Your task to perform on an android device: allow notifications from all sites in the chrome app Image 0: 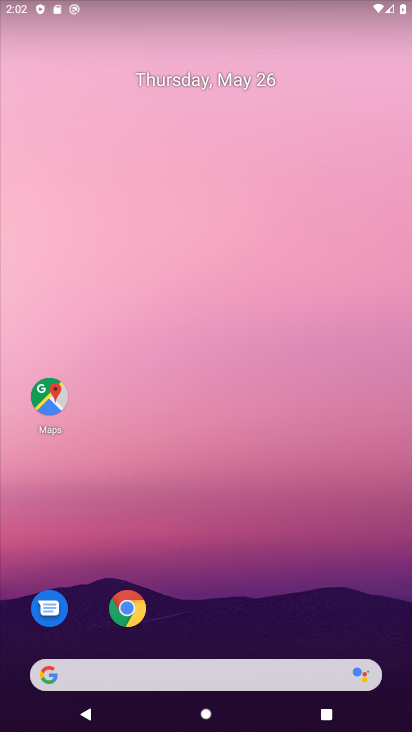
Step 0: click (183, 129)
Your task to perform on an android device: allow notifications from all sites in the chrome app Image 1: 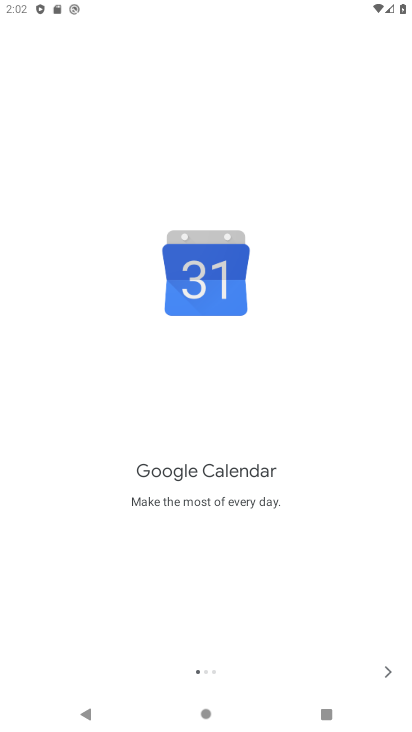
Step 1: click (386, 673)
Your task to perform on an android device: allow notifications from all sites in the chrome app Image 2: 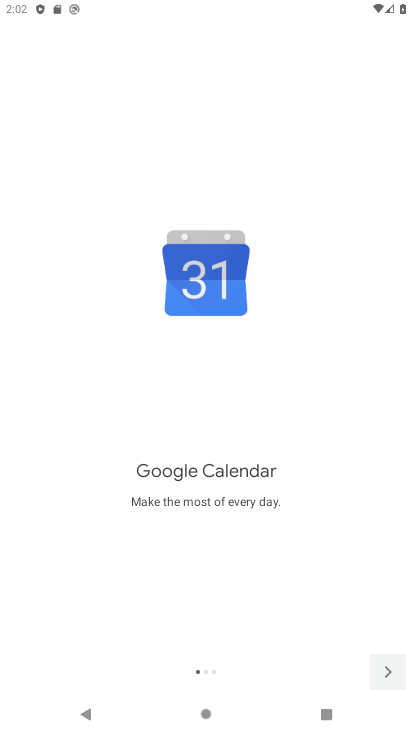
Step 2: click (389, 669)
Your task to perform on an android device: allow notifications from all sites in the chrome app Image 3: 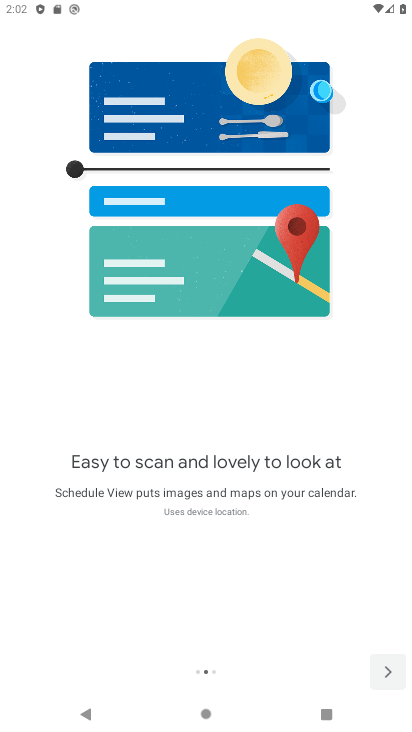
Step 3: click (391, 667)
Your task to perform on an android device: allow notifications from all sites in the chrome app Image 4: 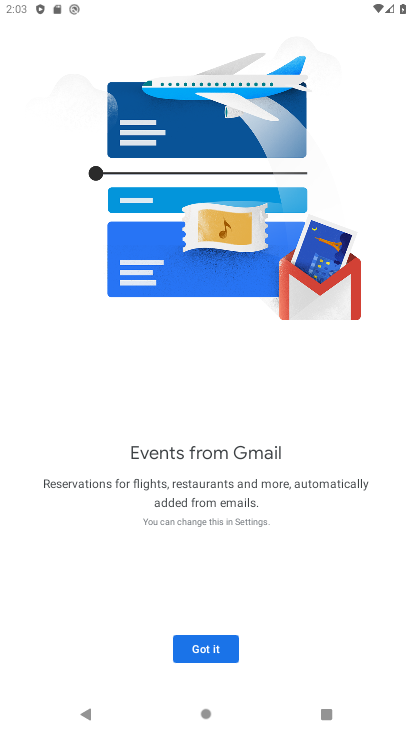
Step 4: click (209, 649)
Your task to perform on an android device: allow notifications from all sites in the chrome app Image 5: 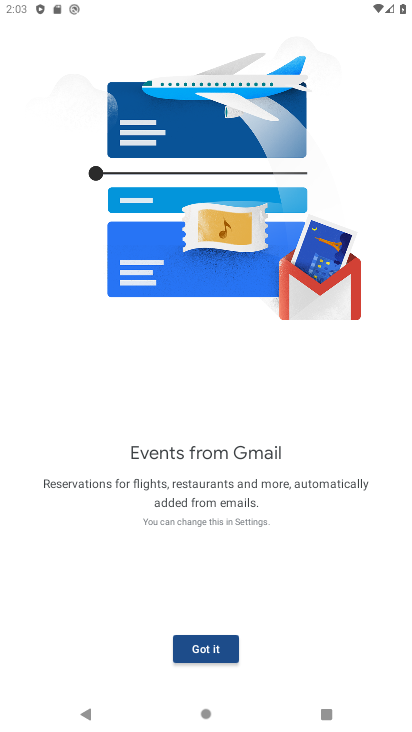
Step 5: click (211, 649)
Your task to perform on an android device: allow notifications from all sites in the chrome app Image 6: 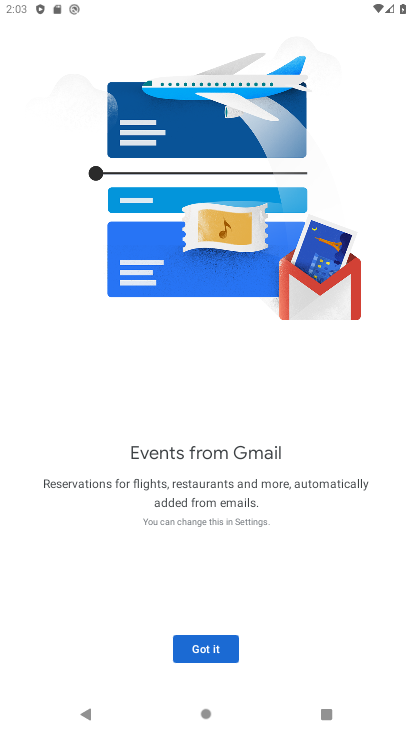
Step 6: click (215, 645)
Your task to perform on an android device: allow notifications from all sites in the chrome app Image 7: 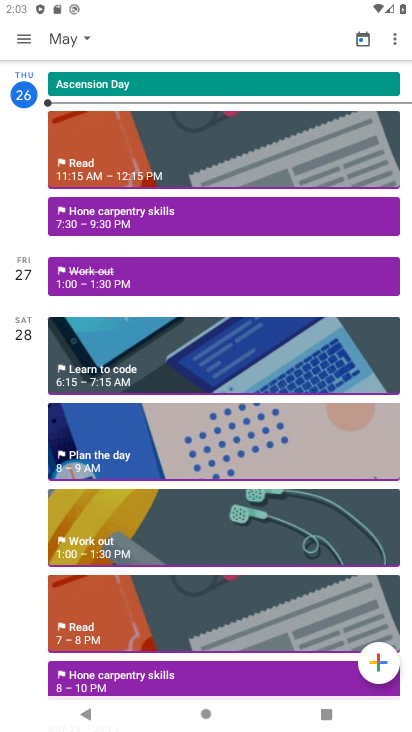
Step 7: press back button
Your task to perform on an android device: allow notifications from all sites in the chrome app Image 8: 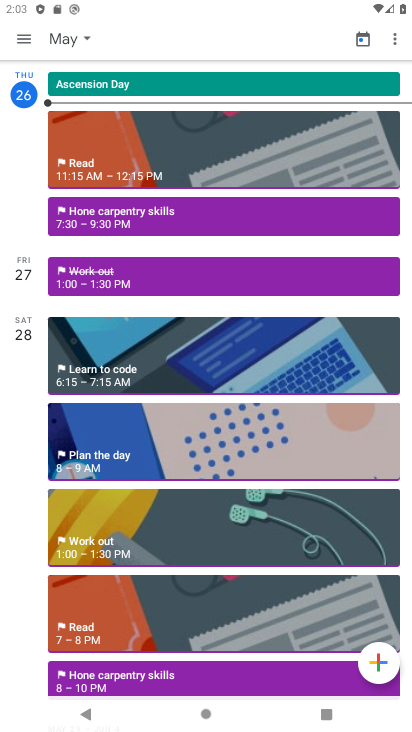
Step 8: press back button
Your task to perform on an android device: allow notifications from all sites in the chrome app Image 9: 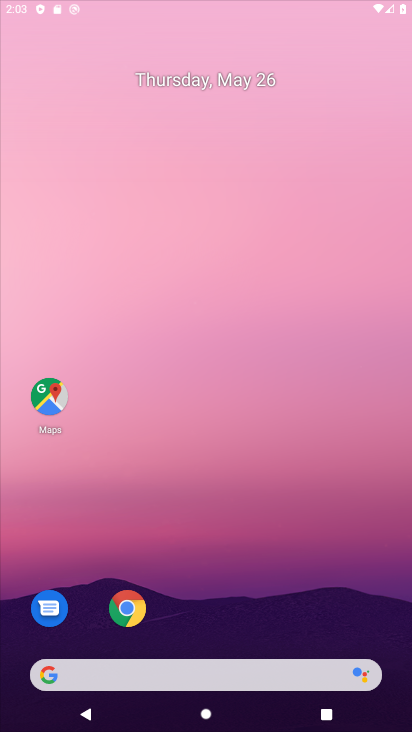
Step 9: press back button
Your task to perform on an android device: allow notifications from all sites in the chrome app Image 10: 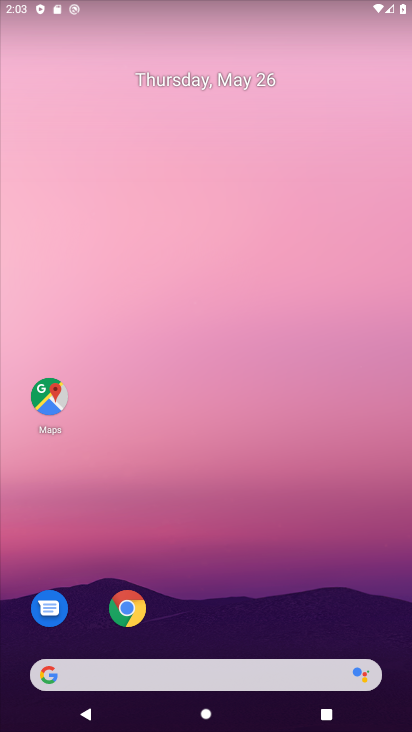
Step 10: drag from (297, 705) to (155, 1)
Your task to perform on an android device: allow notifications from all sites in the chrome app Image 11: 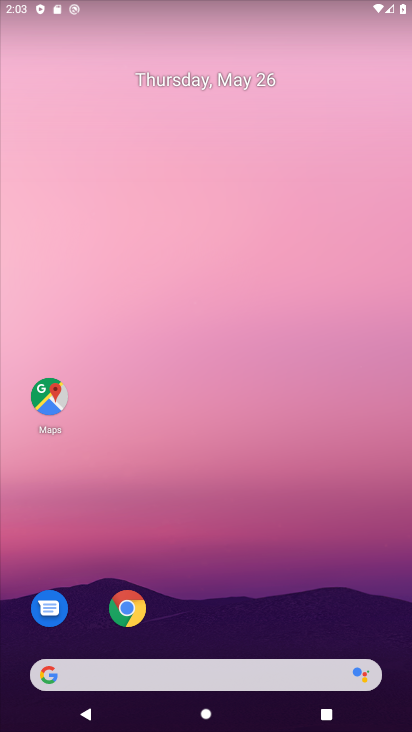
Step 11: drag from (273, 513) to (212, 11)
Your task to perform on an android device: allow notifications from all sites in the chrome app Image 12: 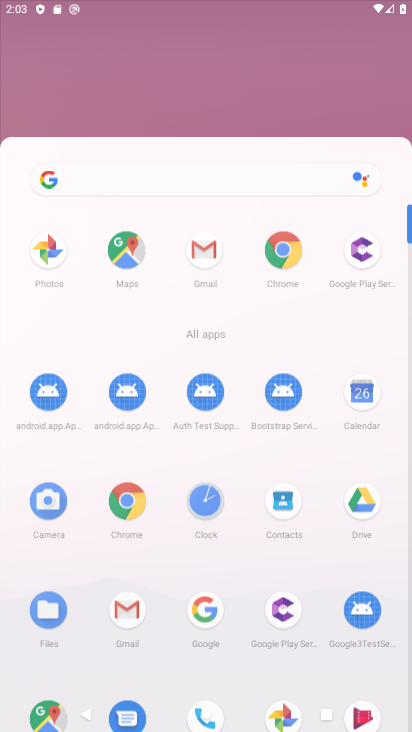
Step 12: drag from (258, 663) to (137, 85)
Your task to perform on an android device: allow notifications from all sites in the chrome app Image 13: 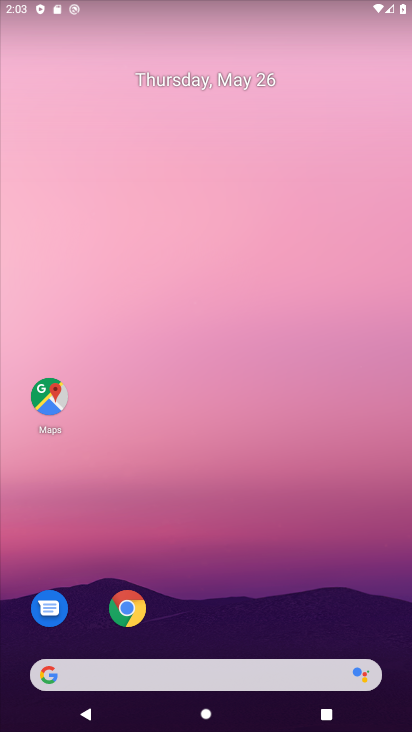
Step 13: drag from (284, 609) to (113, 40)
Your task to perform on an android device: allow notifications from all sites in the chrome app Image 14: 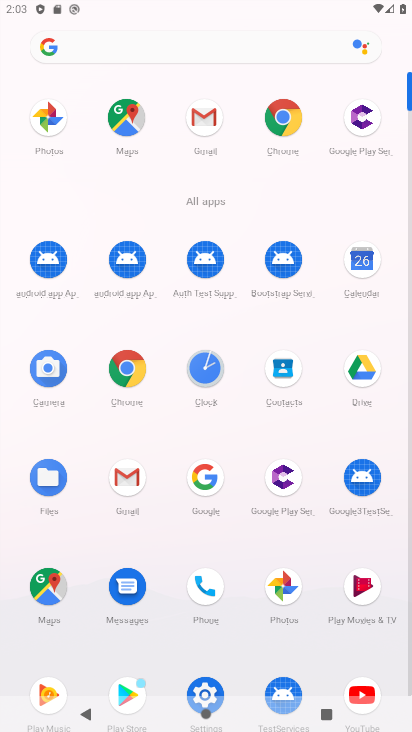
Step 14: click (286, 128)
Your task to perform on an android device: allow notifications from all sites in the chrome app Image 15: 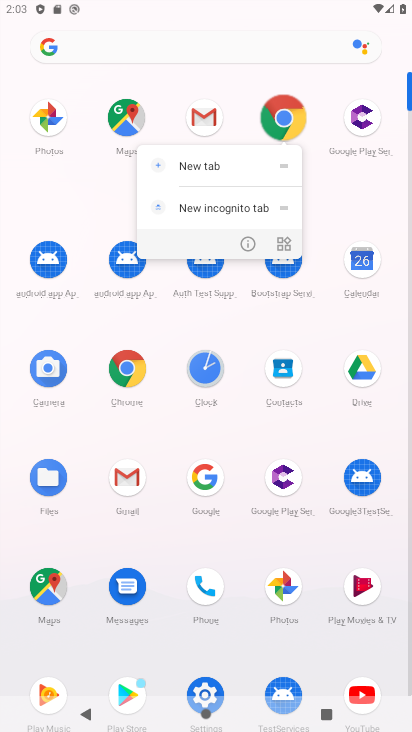
Step 15: click (290, 126)
Your task to perform on an android device: allow notifications from all sites in the chrome app Image 16: 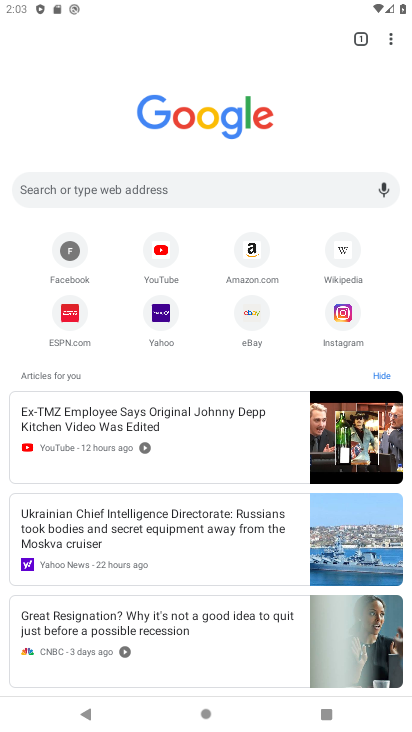
Step 16: drag from (389, 39) to (247, 376)
Your task to perform on an android device: allow notifications from all sites in the chrome app Image 17: 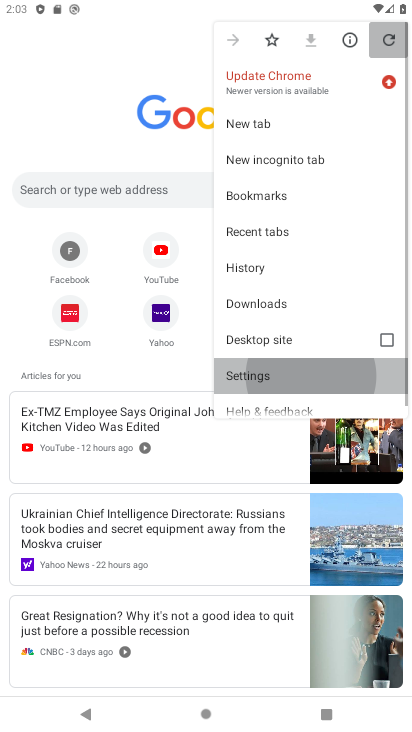
Step 17: click (247, 376)
Your task to perform on an android device: allow notifications from all sites in the chrome app Image 18: 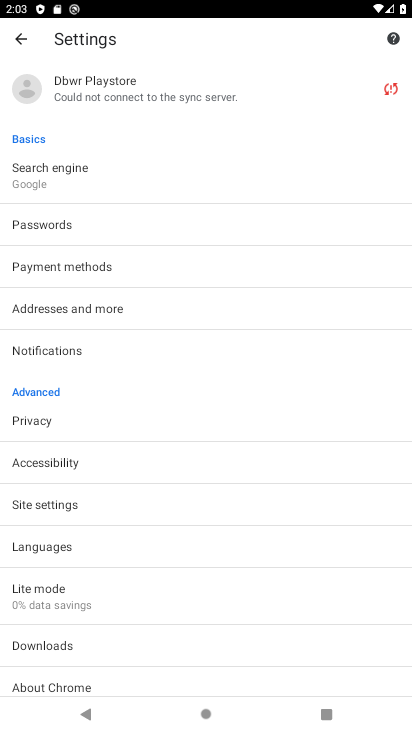
Step 18: click (41, 510)
Your task to perform on an android device: allow notifications from all sites in the chrome app Image 19: 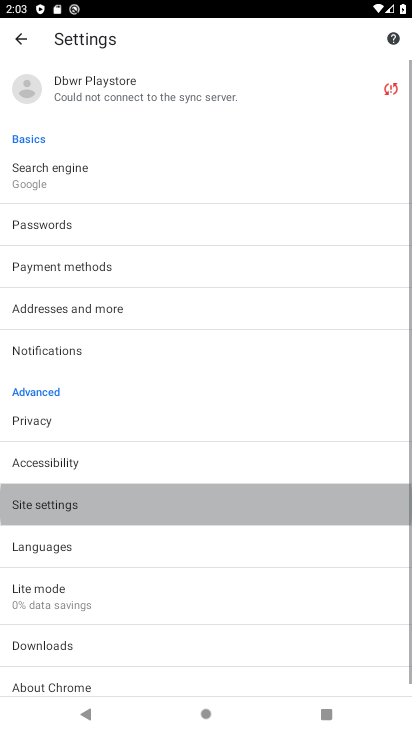
Step 19: click (42, 509)
Your task to perform on an android device: allow notifications from all sites in the chrome app Image 20: 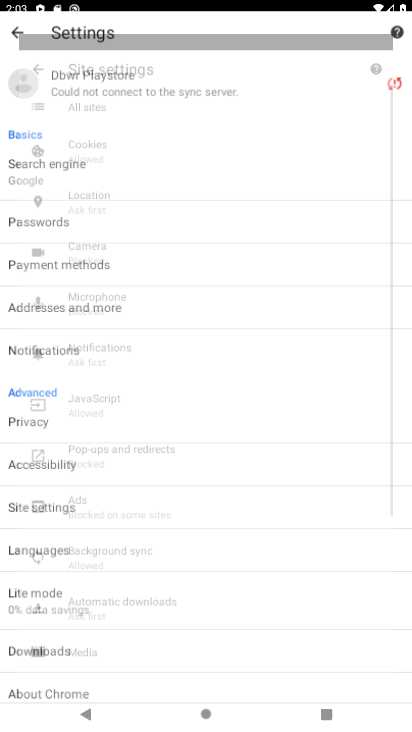
Step 20: click (41, 510)
Your task to perform on an android device: allow notifications from all sites in the chrome app Image 21: 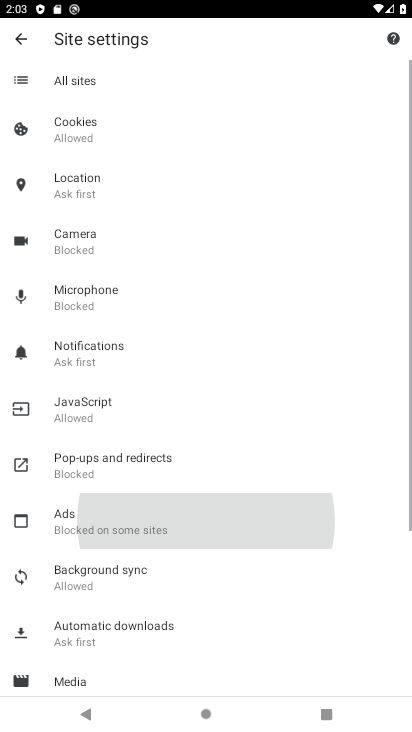
Step 21: click (41, 510)
Your task to perform on an android device: allow notifications from all sites in the chrome app Image 22: 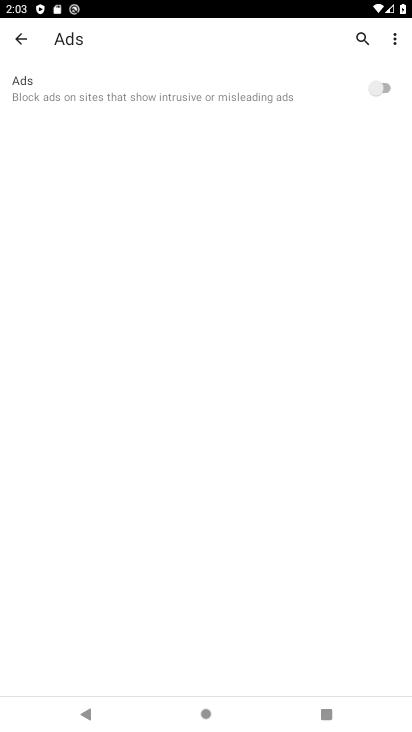
Step 22: click (44, 35)
Your task to perform on an android device: allow notifications from all sites in the chrome app Image 23: 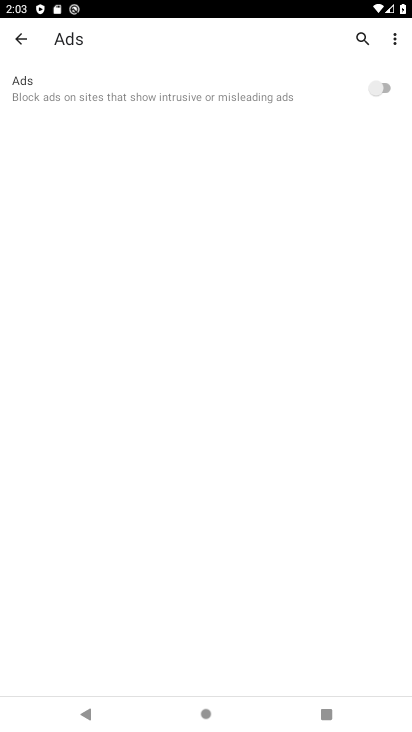
Step 23: click (19, 40)
Your task to perform on an android device: allow notifications from all sites in the chrome app Image 24: 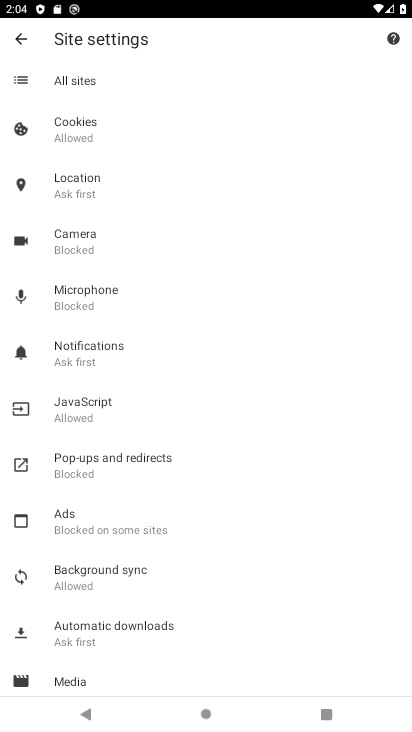
Step 24: click (63, 73)
Your task to perform on an android device: allow notifications from all sites in the chrome app Image 25: 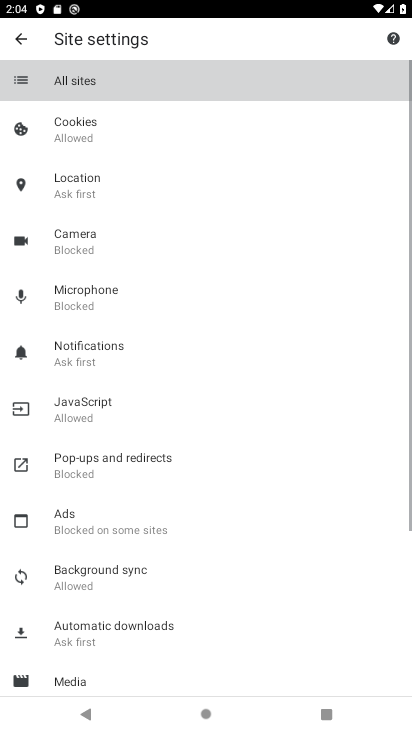
Step 25: click (73, 69)
Your task to perform on an android device: allow notifications from all sites in the chrome app Image 26: 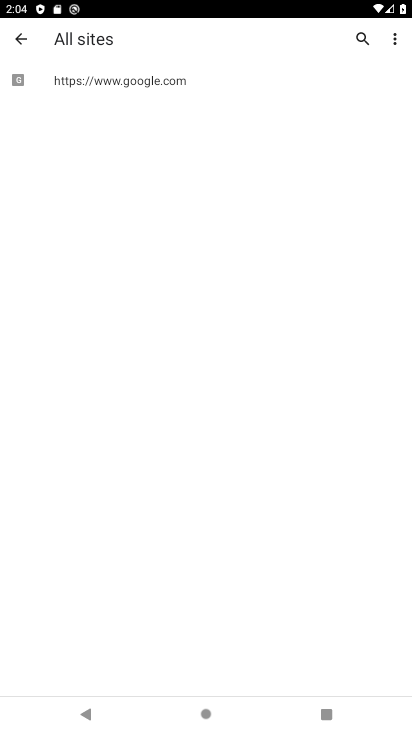
Step 26: click (132, 80)
Your task to perform on an android device: allow notifications from all sites in the chrome app Image 27: 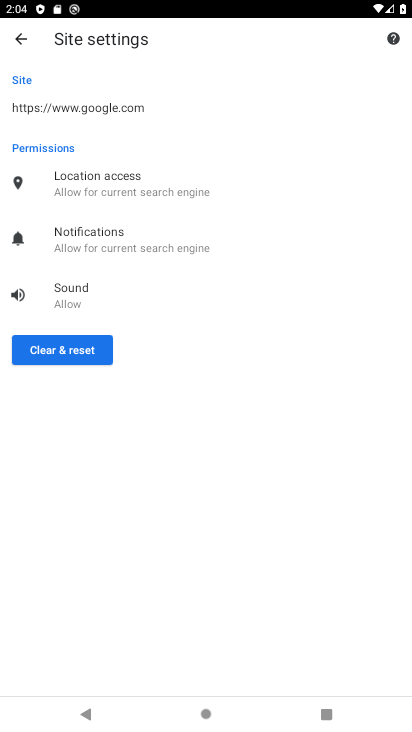
Step 27: click (81, 248)
Your task to perform on an android device: allow notifications from all sites in the chrome app Image 28: 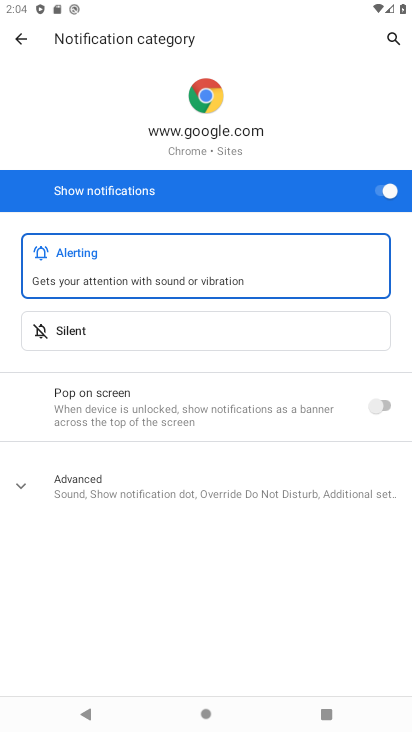
Step 28: task complete